Your task to perform on an android device: Open accessibility settings Image 0: 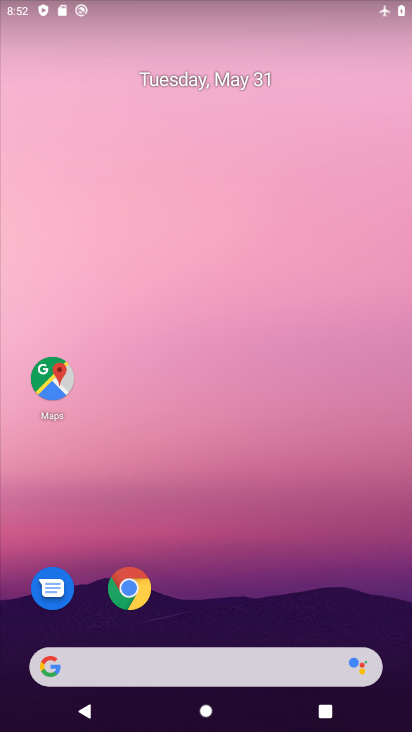
Step 0: drag from (239, 599) to (323, 33)
Your task to perform on an android device: Open accessibility settings Image 1: 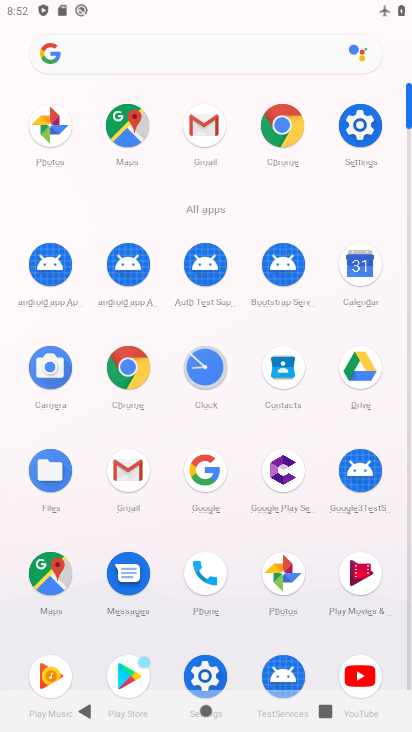
Step 1: click (367, 122)
Your task to perform on an android device: Open accessibility settings Image 2: 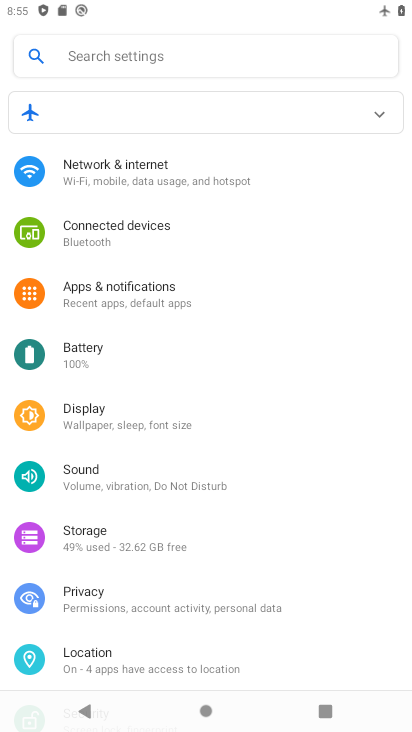
Step 2: drag from (170, 627) to (163, 167)
Your task to perform on an android device: Open accessibility settings Image 3: 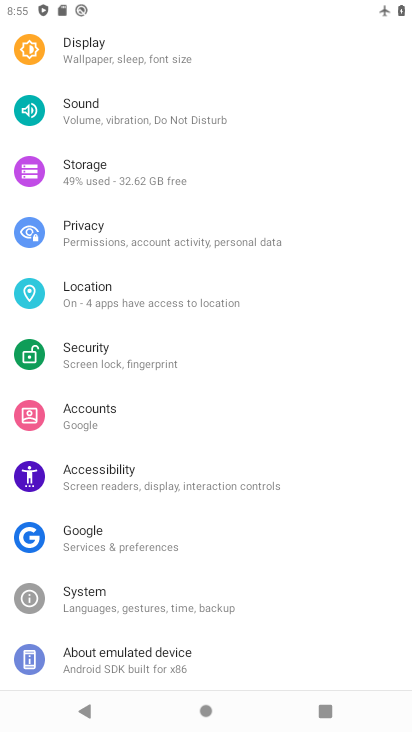
Step 3: click (154, 484)
Your task to perform on an android device: Open accessibility settings Image 4: 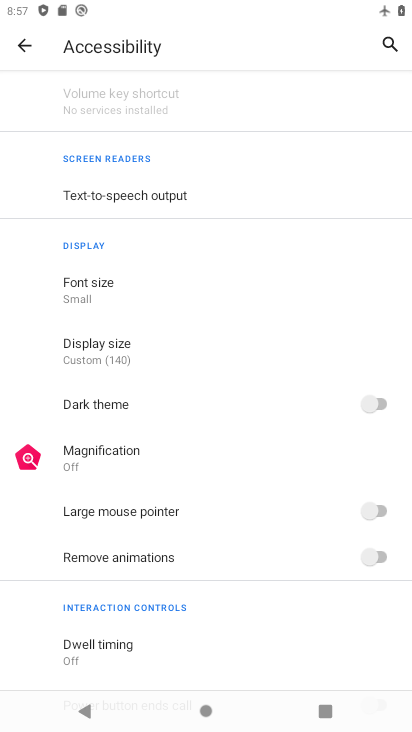
Step 4: task complete